Your task to perform on an android device: Add asus rog to the cart on amazon Image 0: 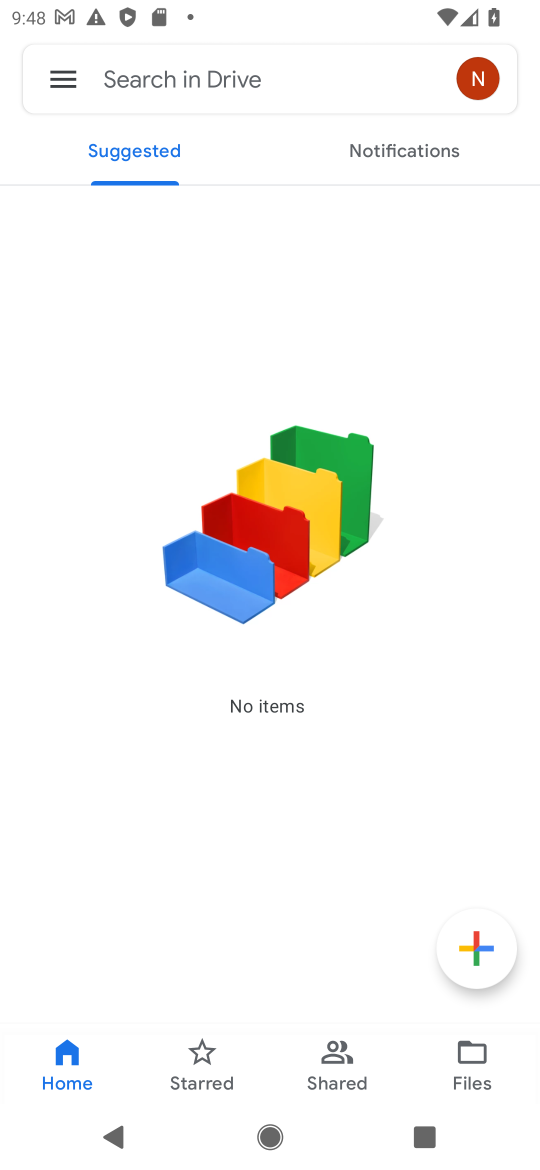
Step 0: press home button
Your task to perform on an android device: Add asus rog to the cart on amazon Image 1: 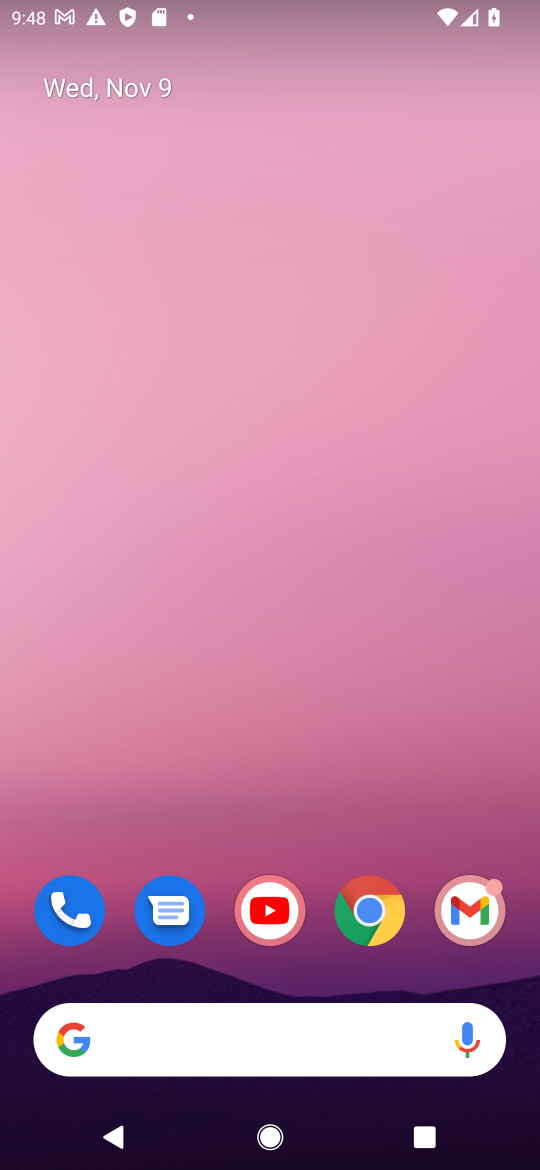
Step 1: click (363, 916)
Your task to perform on an android device: Add asus rog to the cart on amazon Image 2: 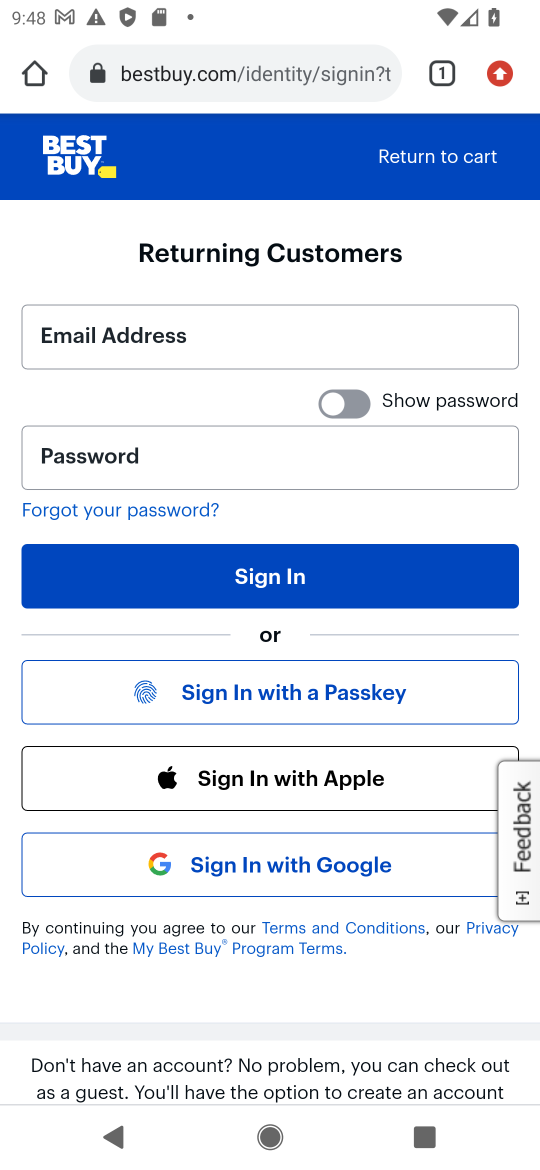
Step 2: click (217, 72)
Your task to perform on an android device: Add asus rog to the cart on amazon Image 3: 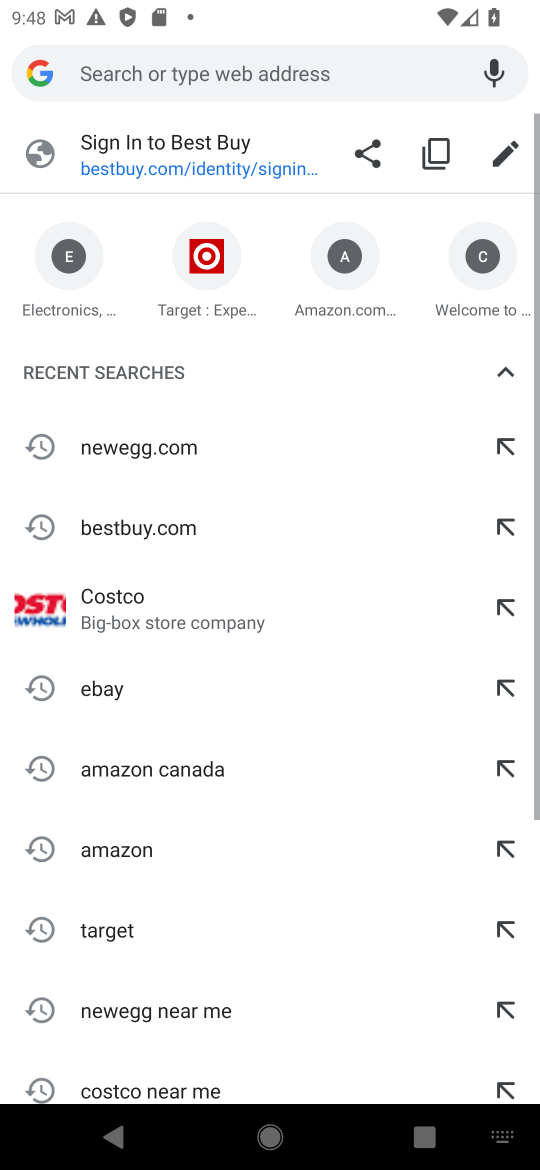
Step 3: click (329, 256)
Your task to perform on an android device: Add asus rog to the cart on amazon Image 4: 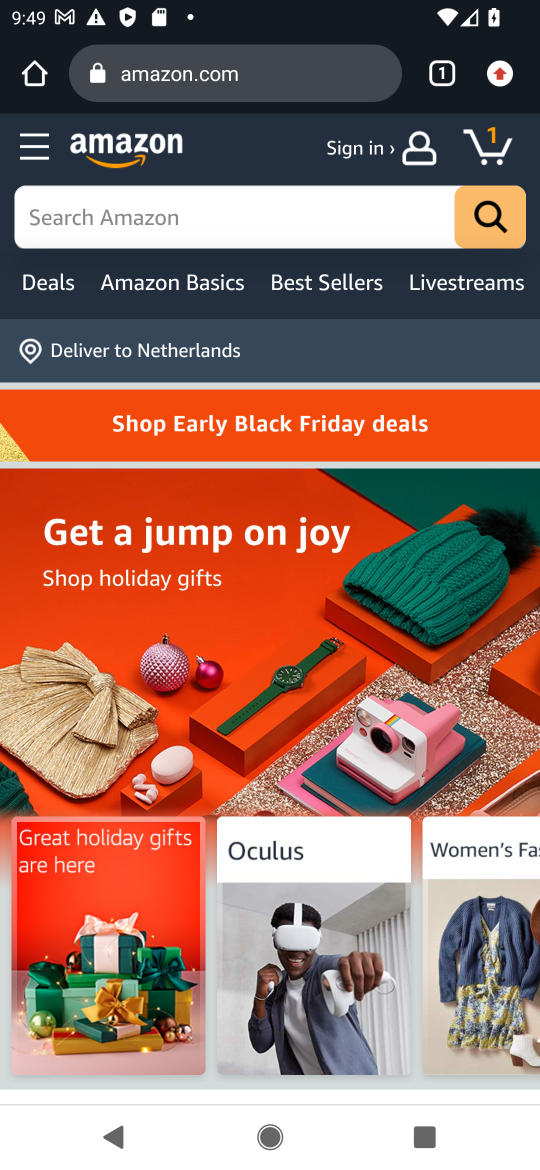
Step 4: click (265, 227)
Your task to perform on an android device: Add asus rog to the cart on amazon Image 5: 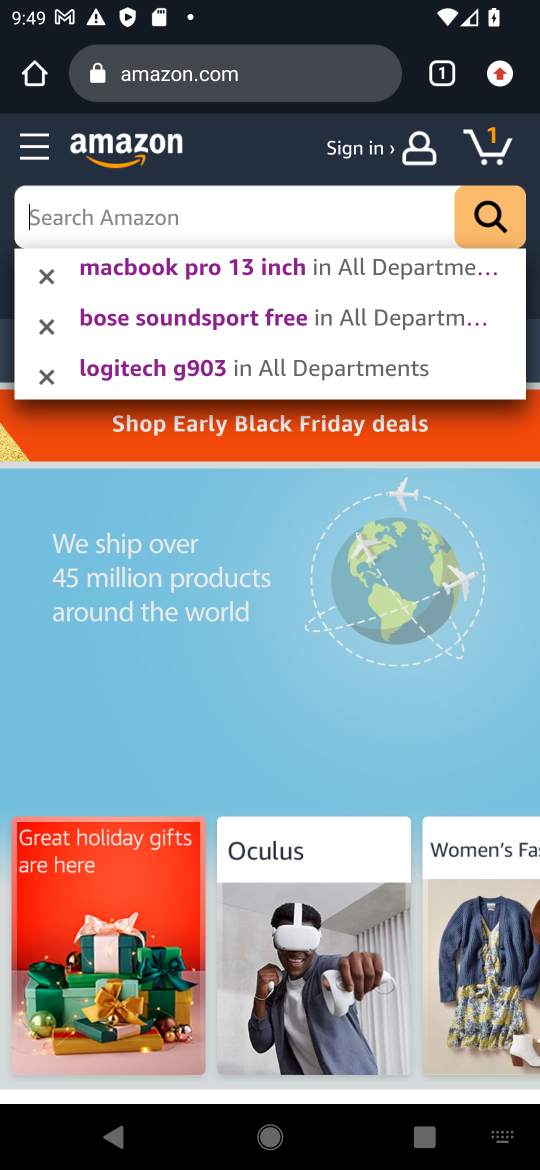
Step 5: type "asus rog"
Your task to perform on an android device: Add asus rog to the cart on amazon Image 6: 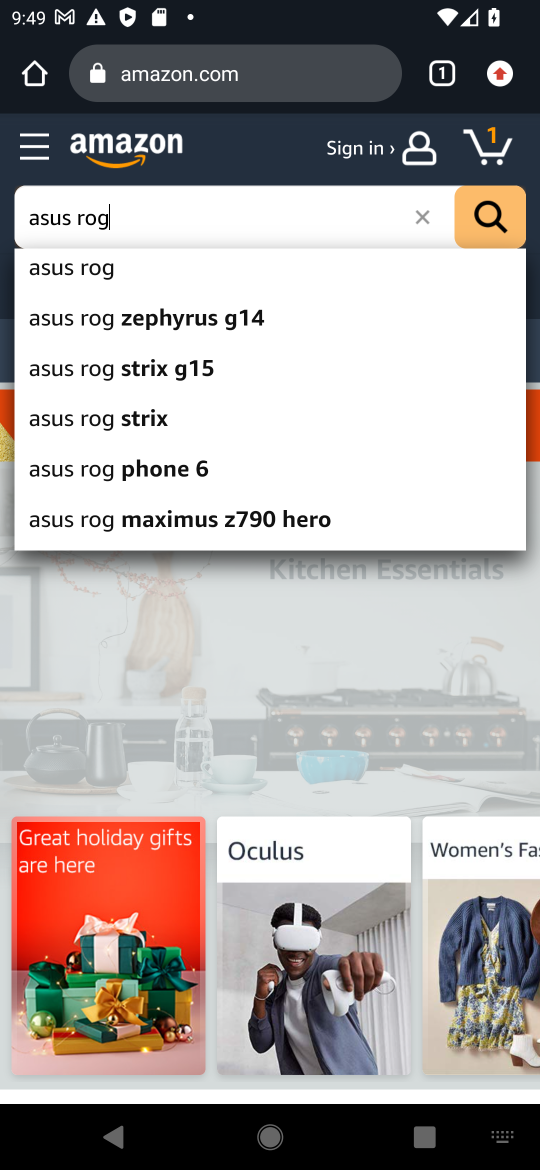
Step 6: click (62, 270)
Your task to perform on an android device: Add asus rog to the cart on amazon Image 7: 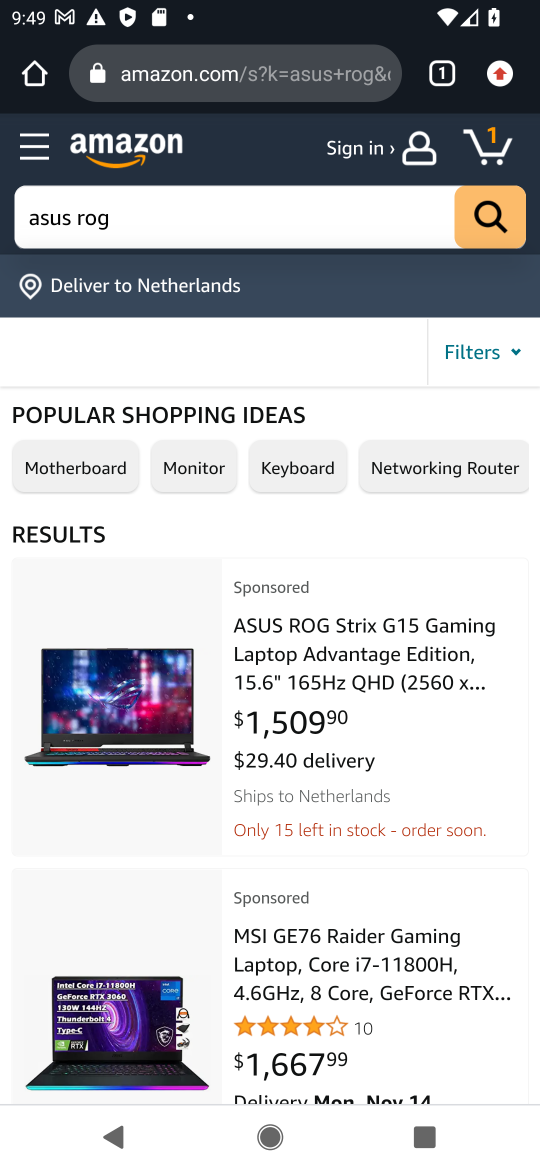
Step 7: click (156, 722)
Your task to perform on an android device: Add asus rog to the cart on amazon Image 8: 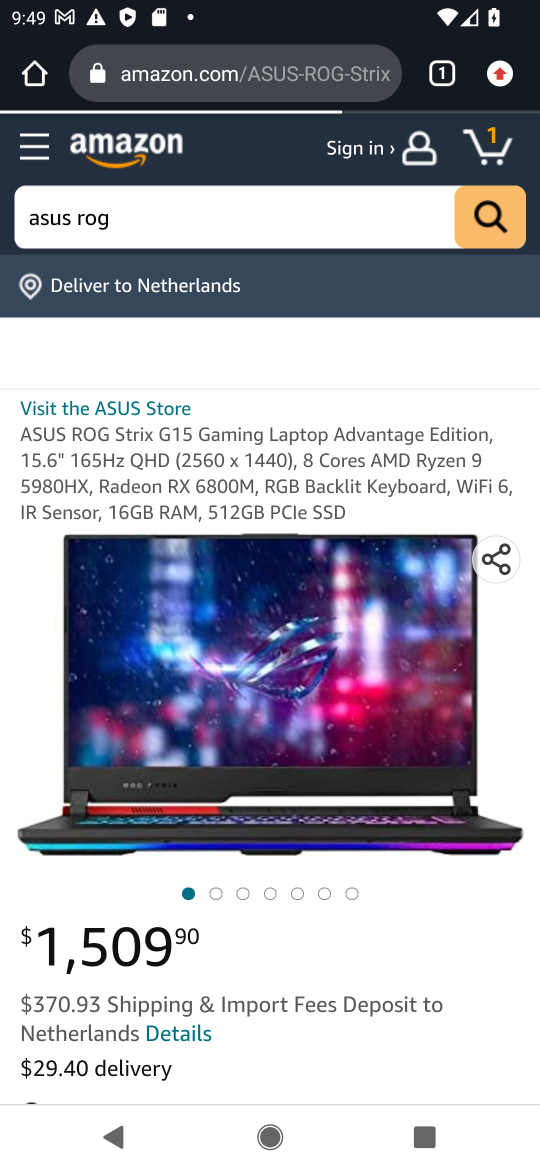
Step 8: drag from (232, 859) to (206, 285)
Your task to perform on an android device: Add asus rog to the cart on amazon Image 9: 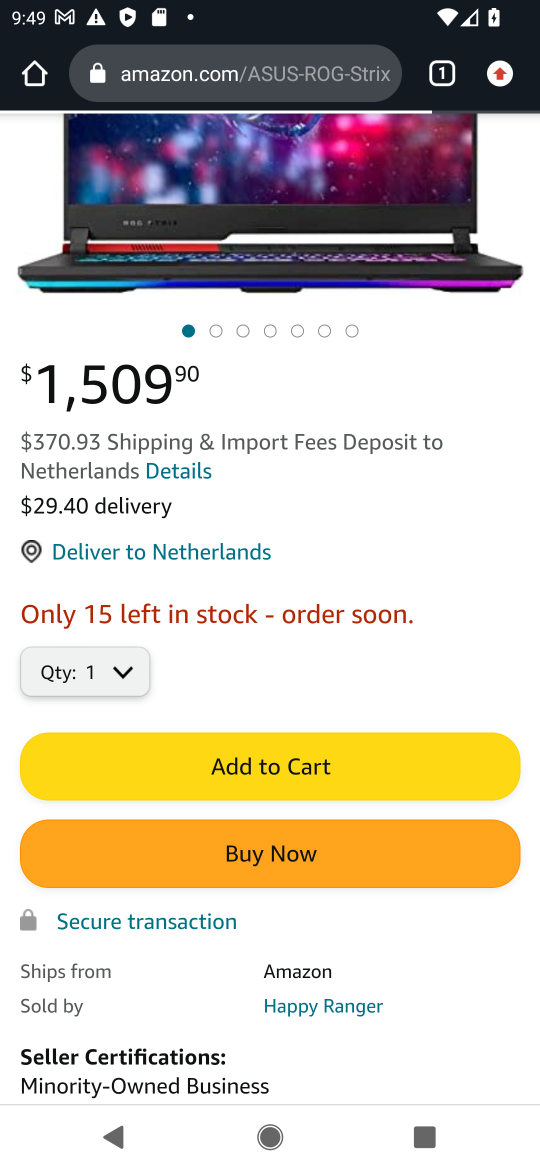
Step 9: click (248, 764)
Your task to perform on an android device: Add asus rog to the cart on amazon Image 10: 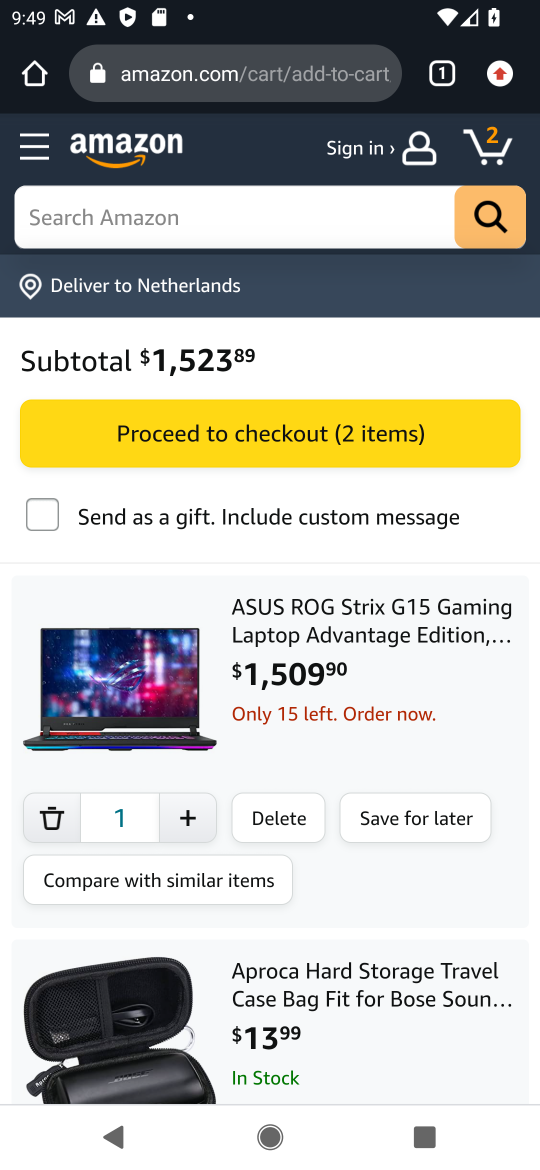
Step 10: task complete